Your task to perform on an android device: Open the calendar and show me this week's events Image 0: 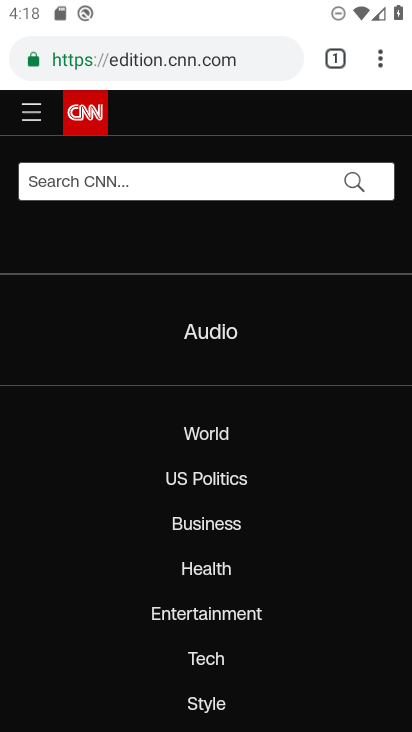
Step 0: drag from (292, 603) to (295, 144)
Your task to perform on an android device: Open the calendar and show me this week's events Image 1: 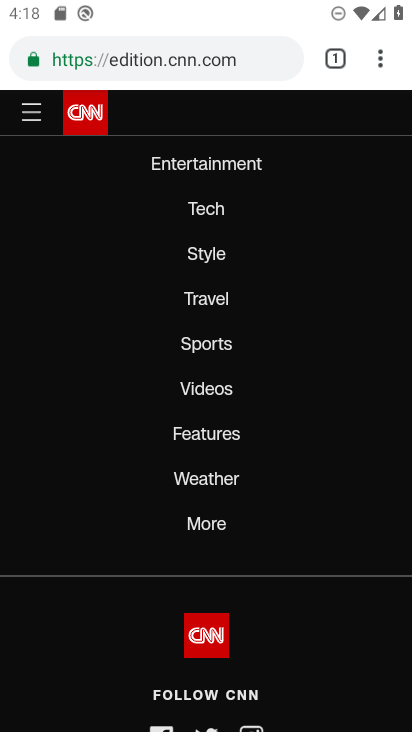
Step 1: press home button
Your task to perform on an android device: Open the calendar and show me this week's events Image 2: 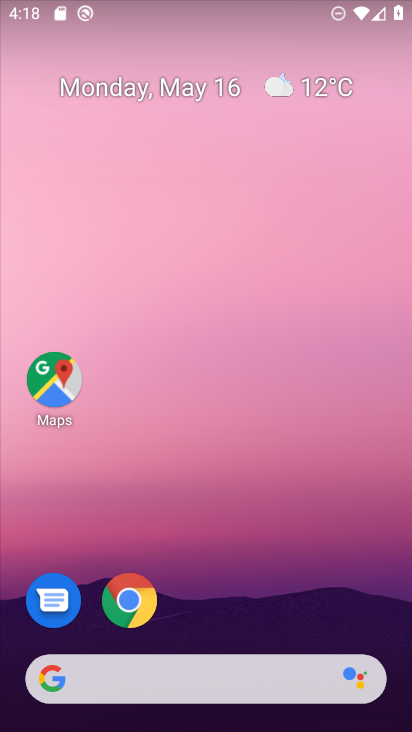
Step 2: drag from (291, 525) to (284, 107)
Your task to perform on an android device: Open the calendar and show me this week's events Image 3: 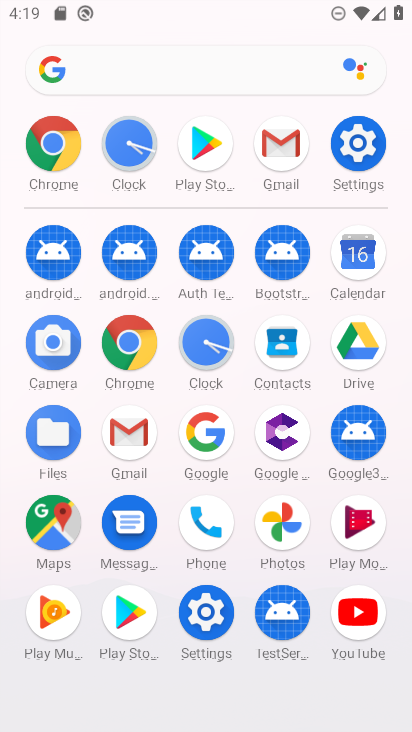
Step 3: click (367, 256)
Your task to perform on an android device: Open the calendar and show me this week's events Image 4: 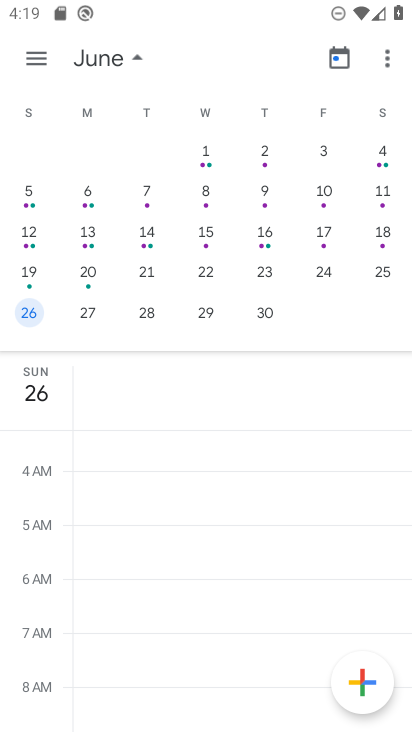
Step 4: drag from (55, 207) to (392, 241)
Your task to perform on an android device: Open the calendar and show me this week's events Image 5: 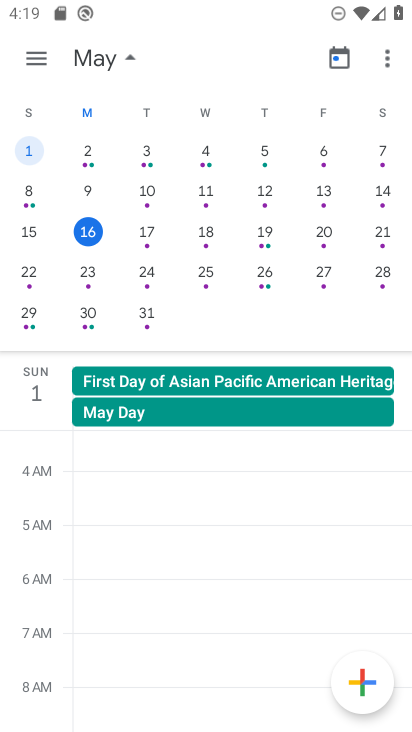
Step 5: click (147, 232)
Your task to perform on an android device: Open the calendar and show me this week's events Image 6: 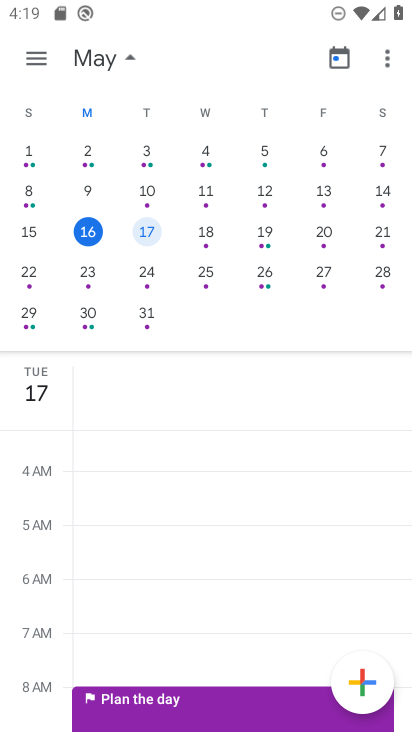
Step 6: click (33, 55)
Your task to perform on an android device: Open the calendar and show me this week's events Image 7: 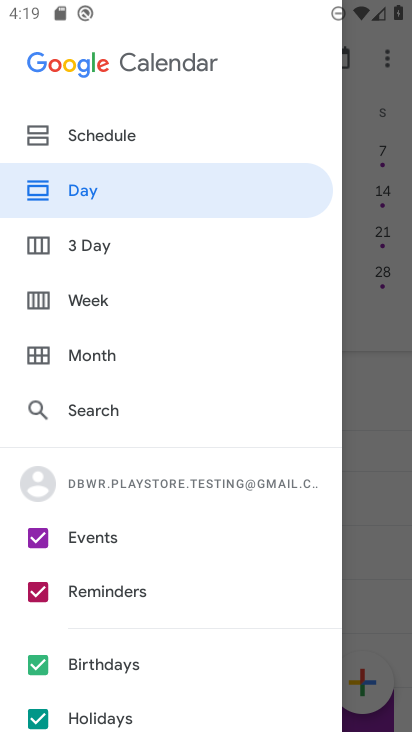
Step 7: click (86, 306)
Your task to perform on an android device: Open the calendar and show me this week's events Image 8: 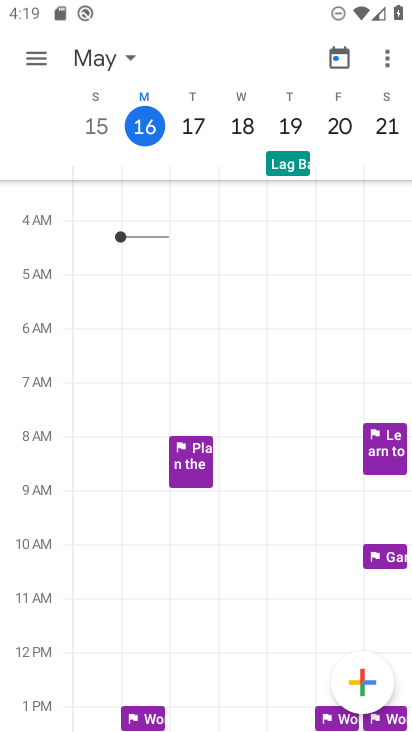
Step 8: task complete